Your task to perform on an android device: open app "Grab" (install if not already installed), go to login, and select forgot password Image 0: 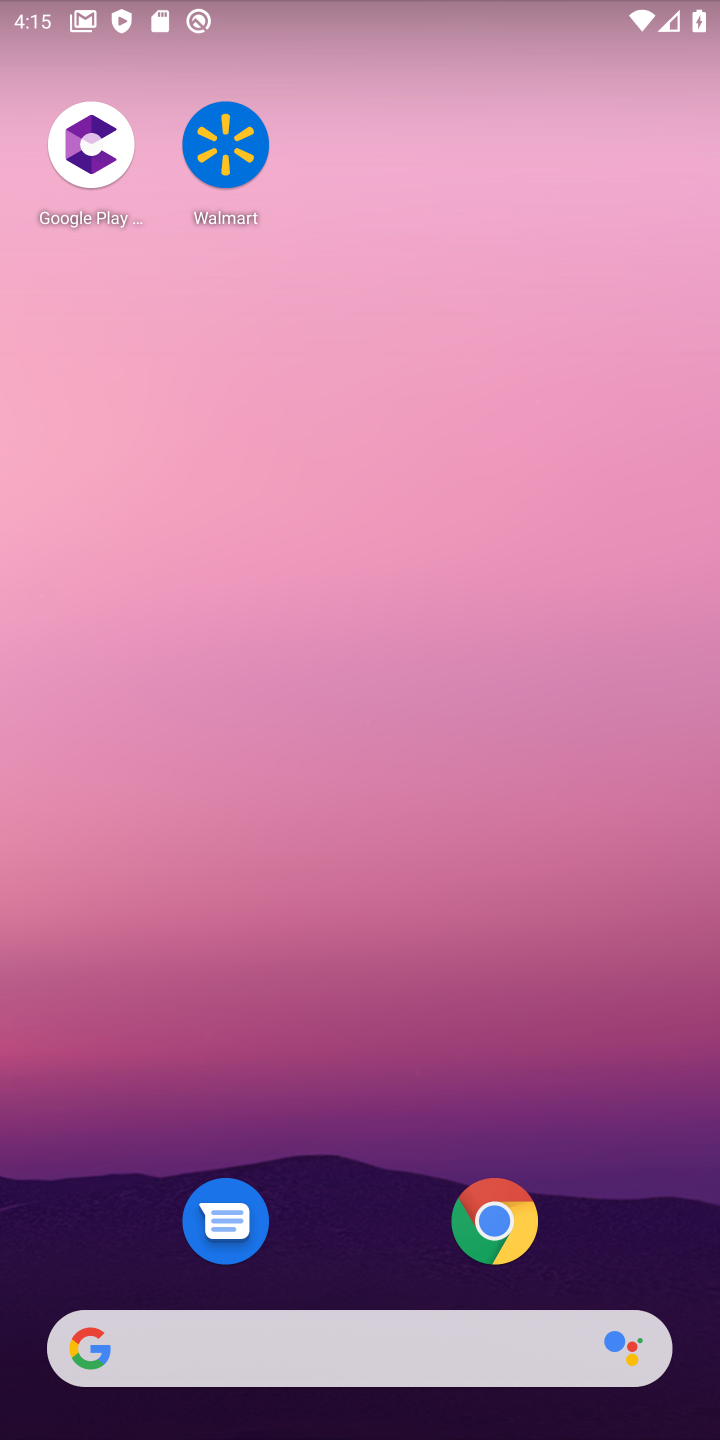
Step 0: drag from (398, 1025) to (259, 73)
Your task to perform on an android device: open app "Grab" (install if not already installed), go to login, and select forgot password Image 1: 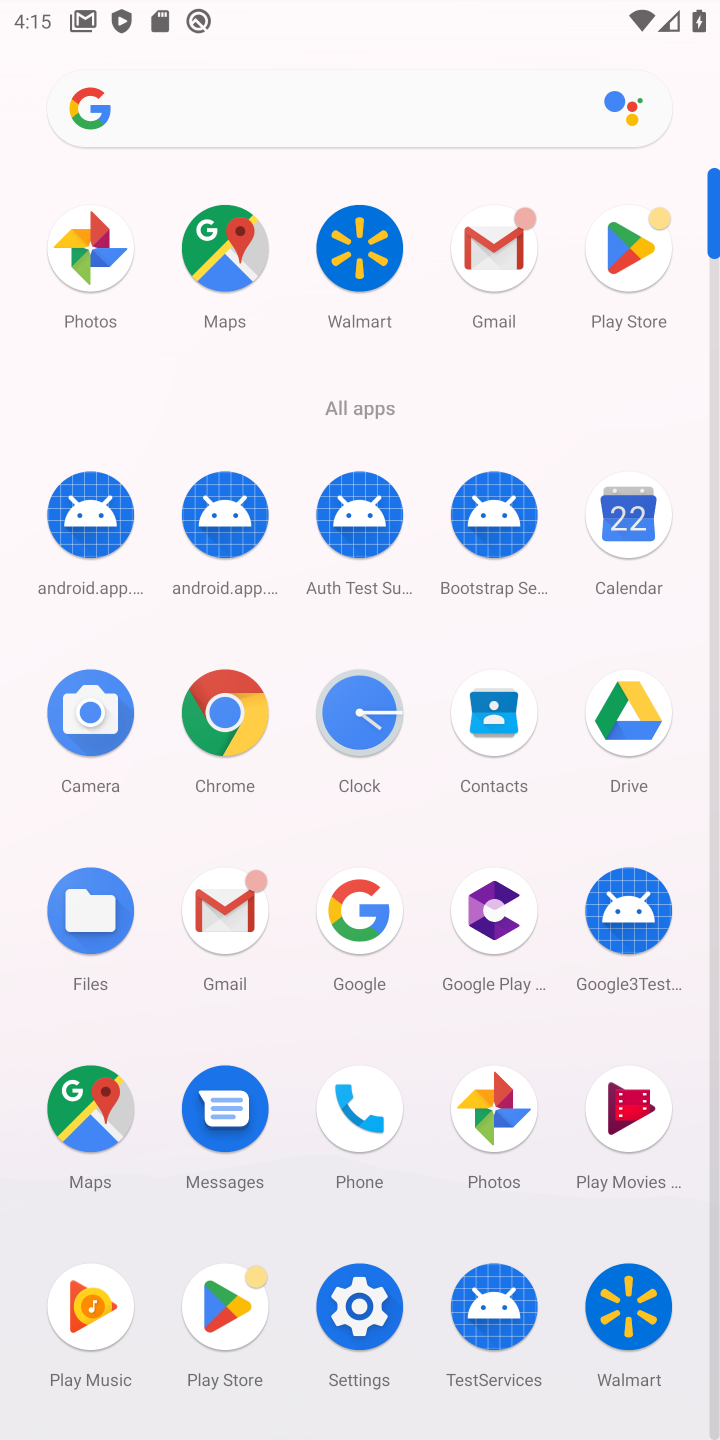
Step 1: click (627, 258)
Your task to perform on an android device: open app "Grab" (install if not already installed), go to login, and select forgot password Image 2: 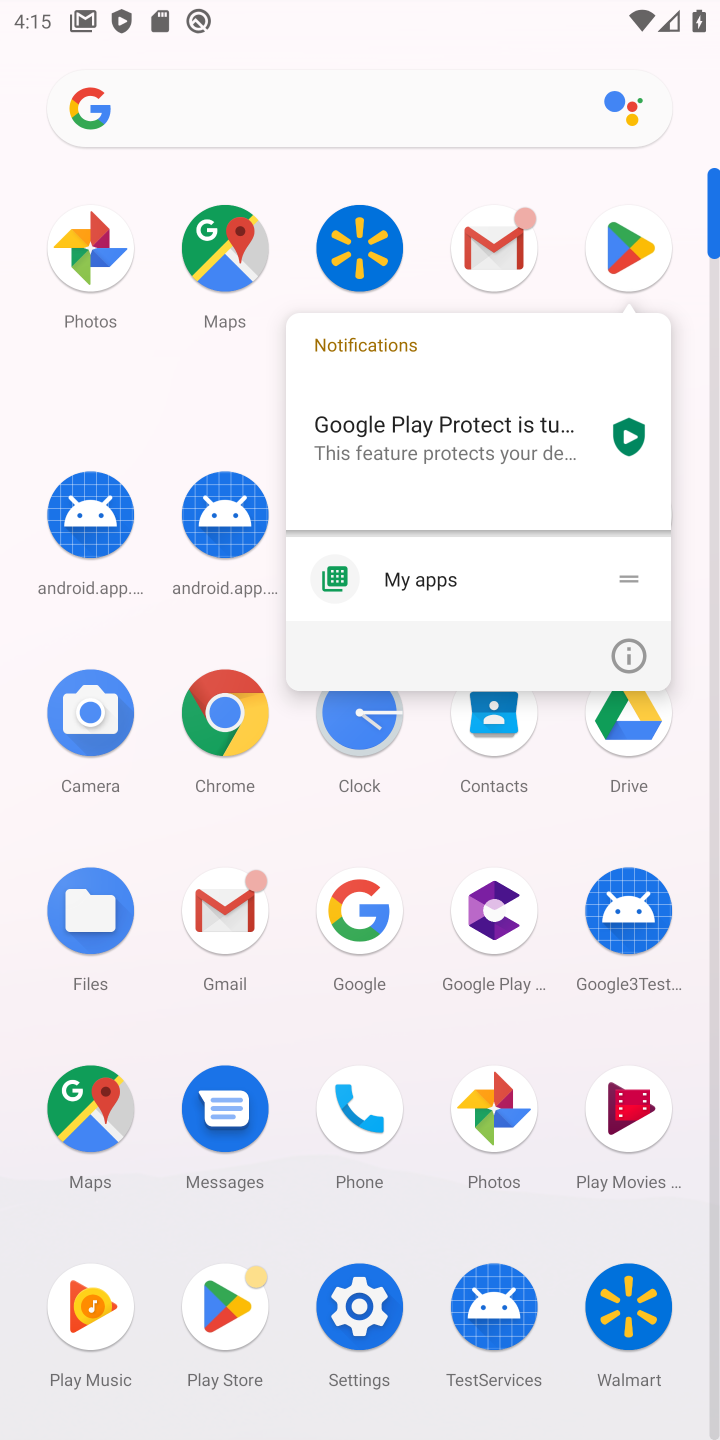
Step 2: click (627, 258)
Your task to perform on an android device: open app "Grab" (install if not already installed), go to login, and select forgot password Image 3: 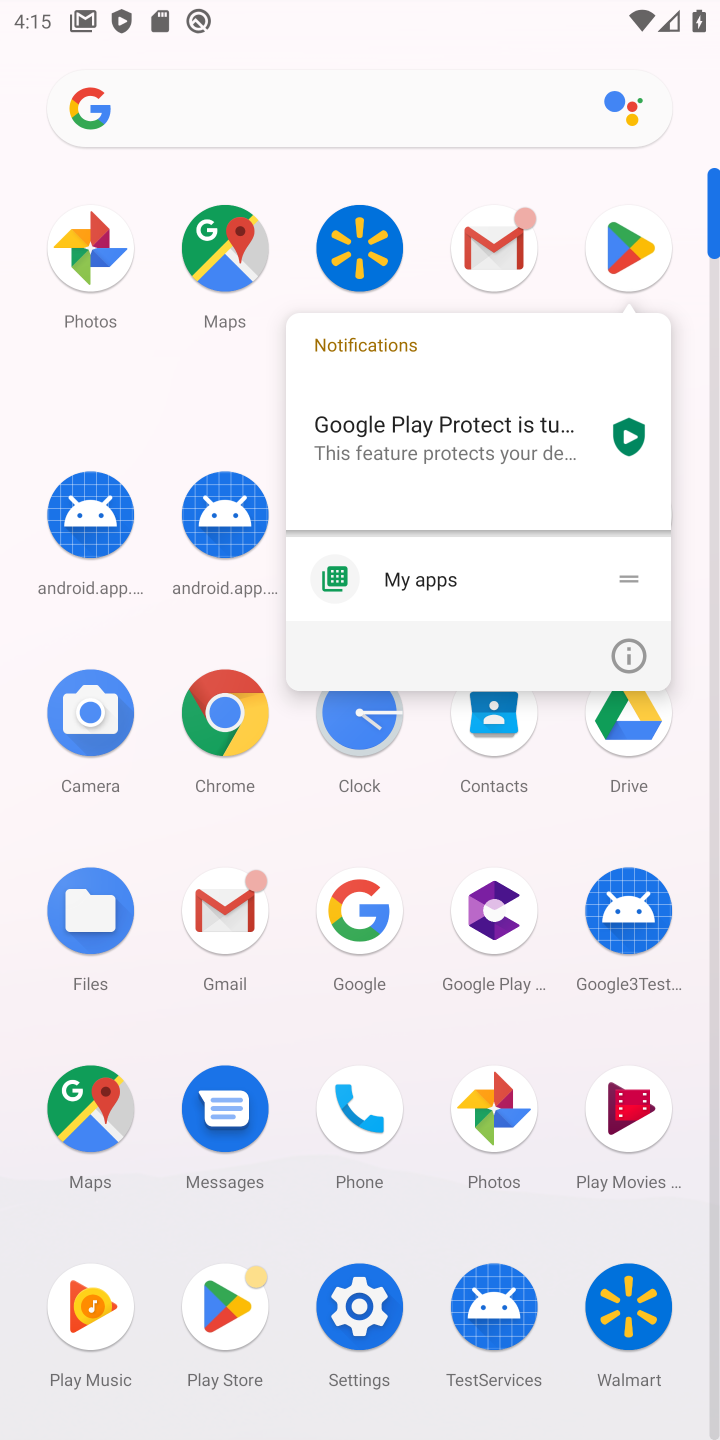
Step 3: click (627, 258)
Your task to perform on an android device: open app "Grab" (install if not already installed), go to login, and select forgot password Image 4: 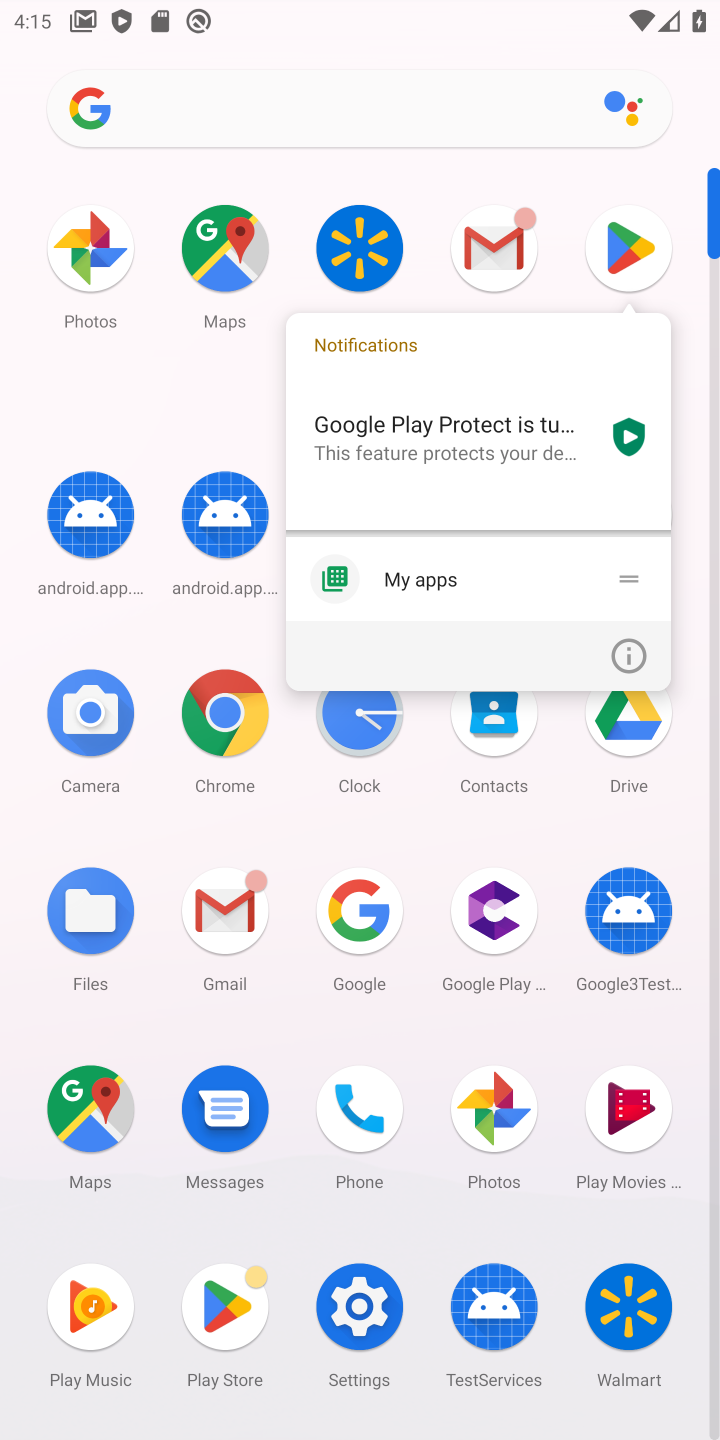
Step 4: click (617, 268)
Your task to perform on an android device: open app "Grab" (install if not already installed), go to login, and select forgot password Image 5: 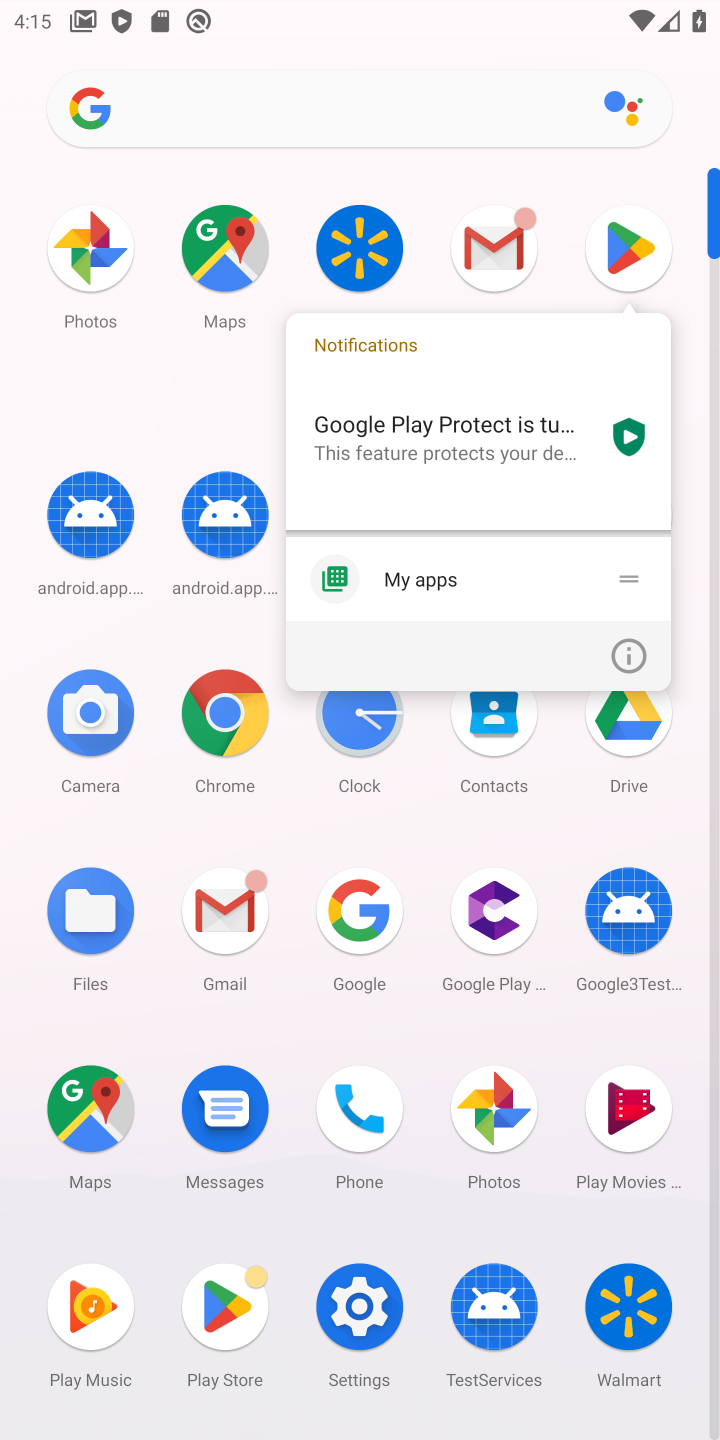
Step 5: click (617, 263)
Your task to perform on an android device: open app "Grab" (install if not already installed), go to login, and select forgot password Image 6: 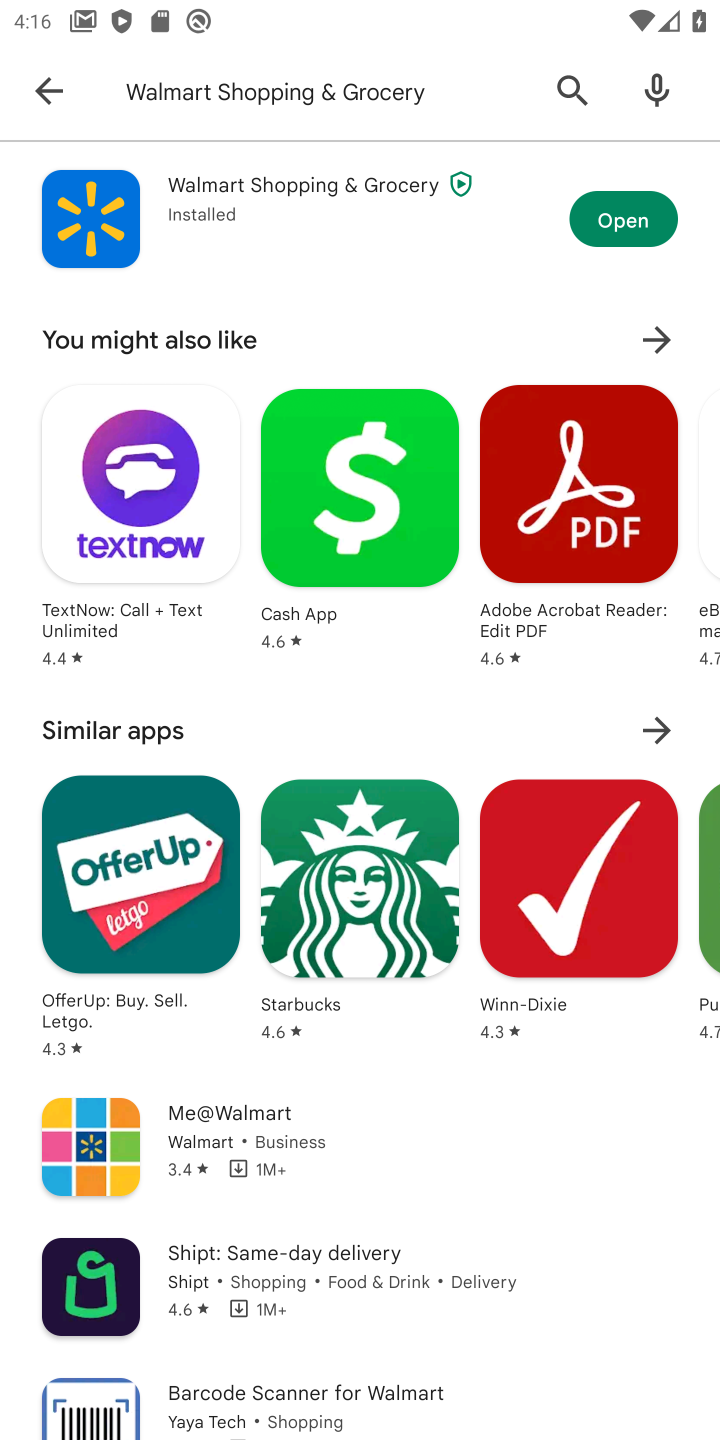
Step 6: press back button
Your task to perform on an android device: open app "Grab" (install if not already installed), go to login, and select forgot password Image 7: 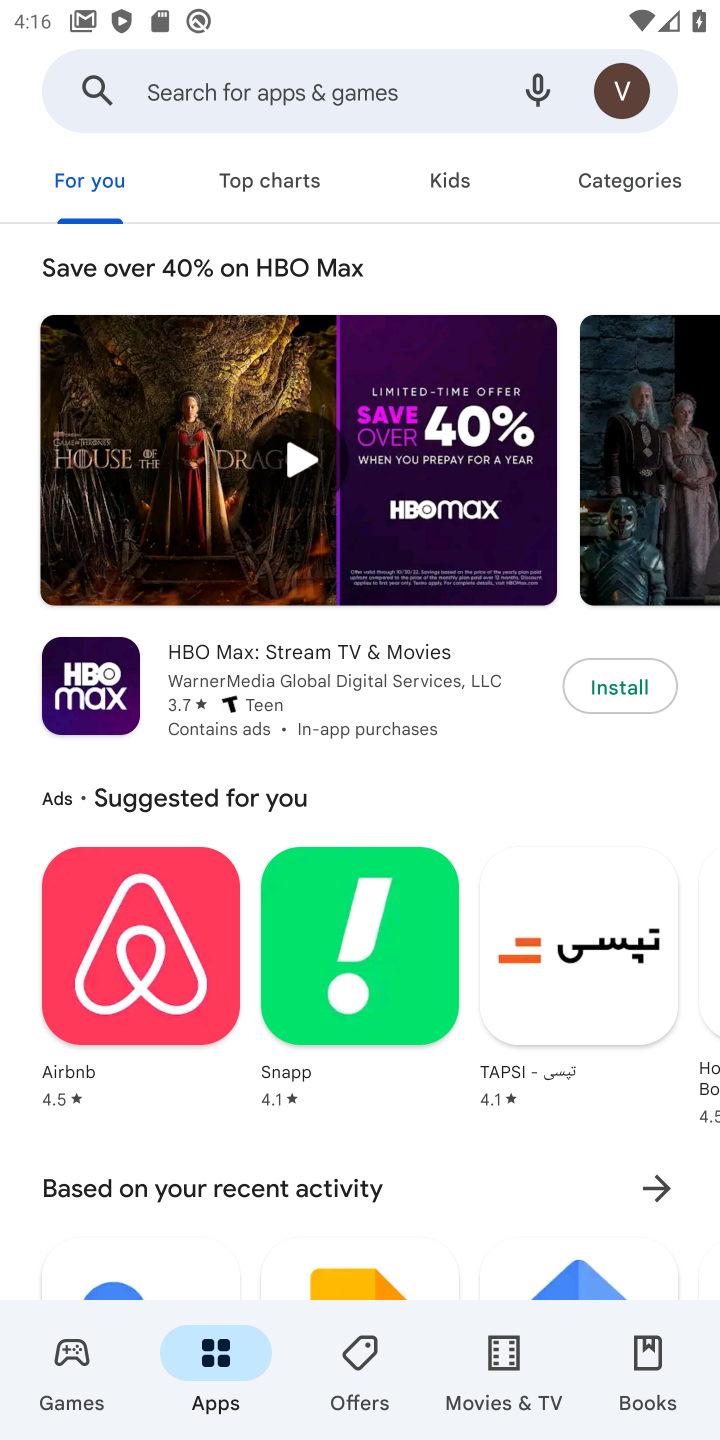
Step 7: click (216, 109)
Your task to perform on an android device: open app "Grab" (install if not already installed), go to login, and select forgot password Image 8: 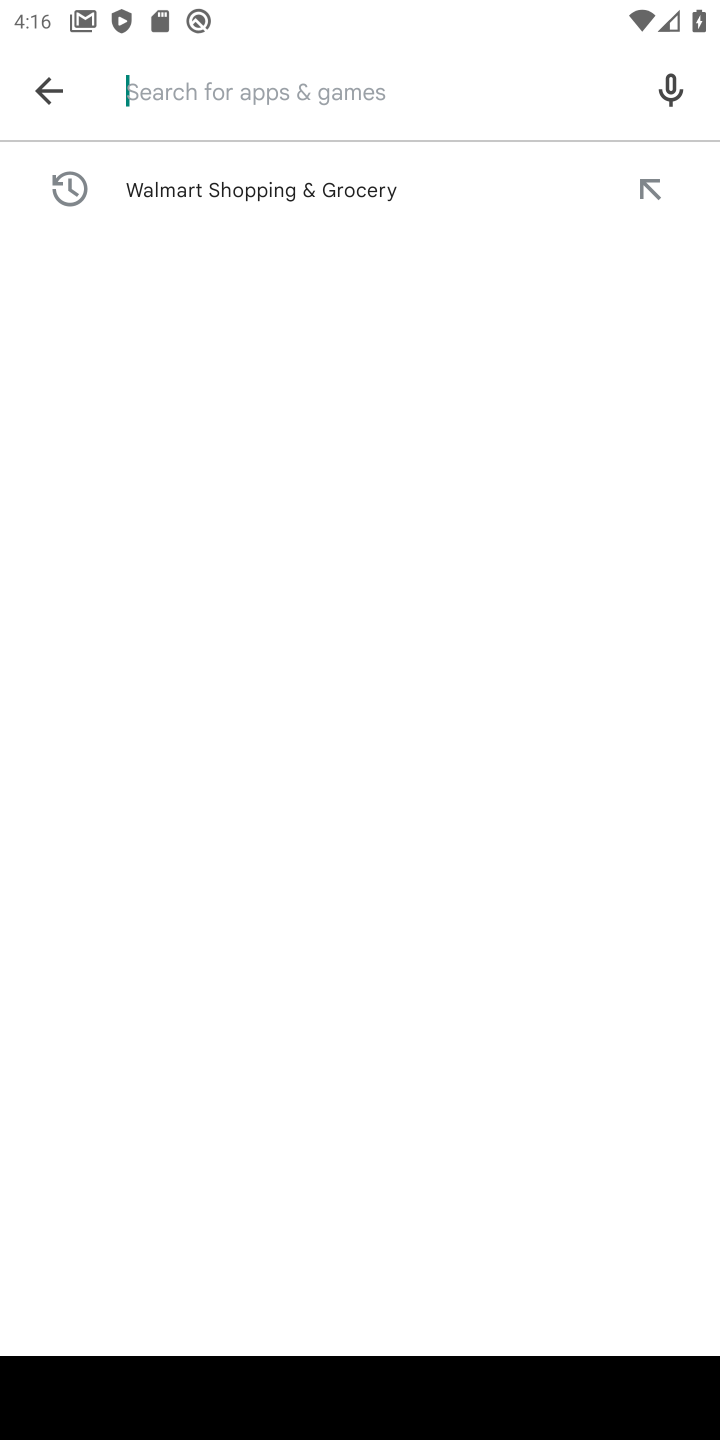
Step 8: type "Grab"
Your task to perform on an android device: open app "Grab" (install if not already installed), go to login, and select forgot password Image 9: 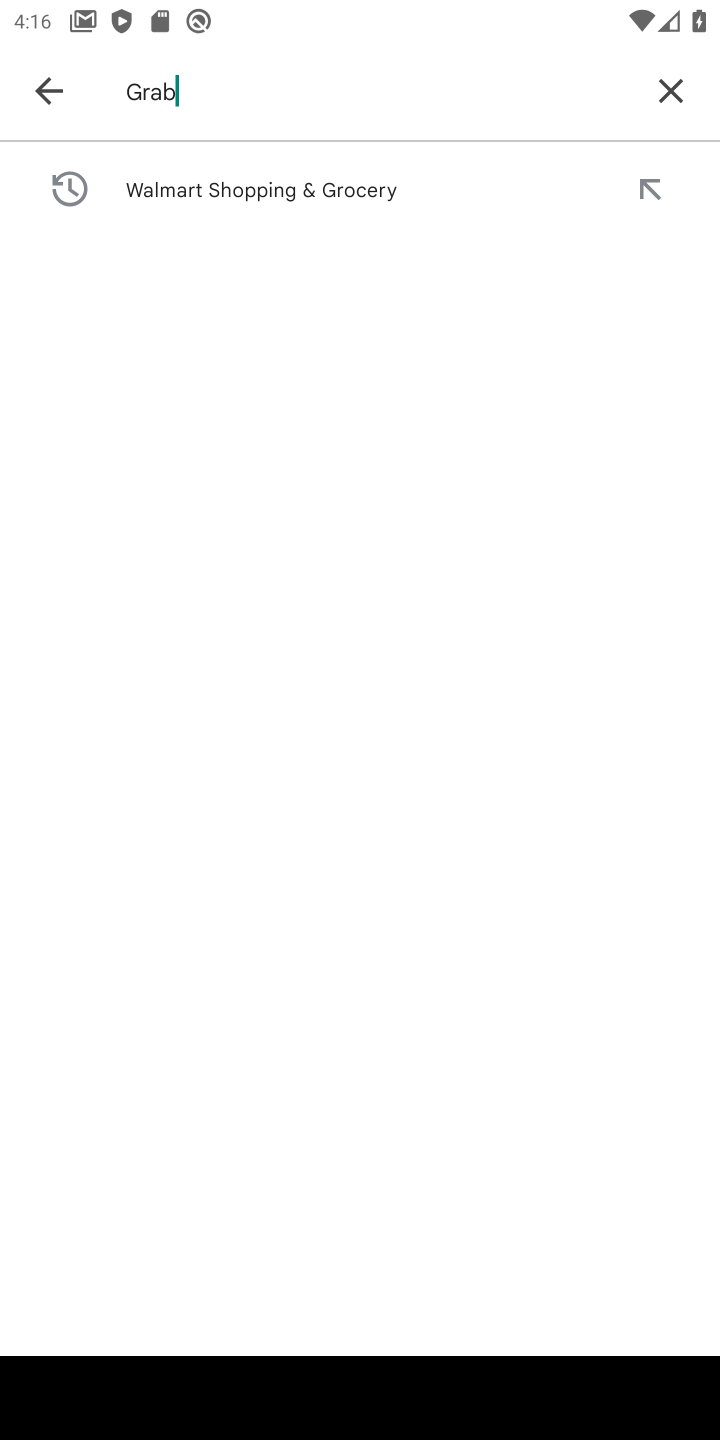
Step 9: press enter
Your task to perform on an android device: open app "Grab" (install if not already installed), go to login, and select forgot password Image 10: 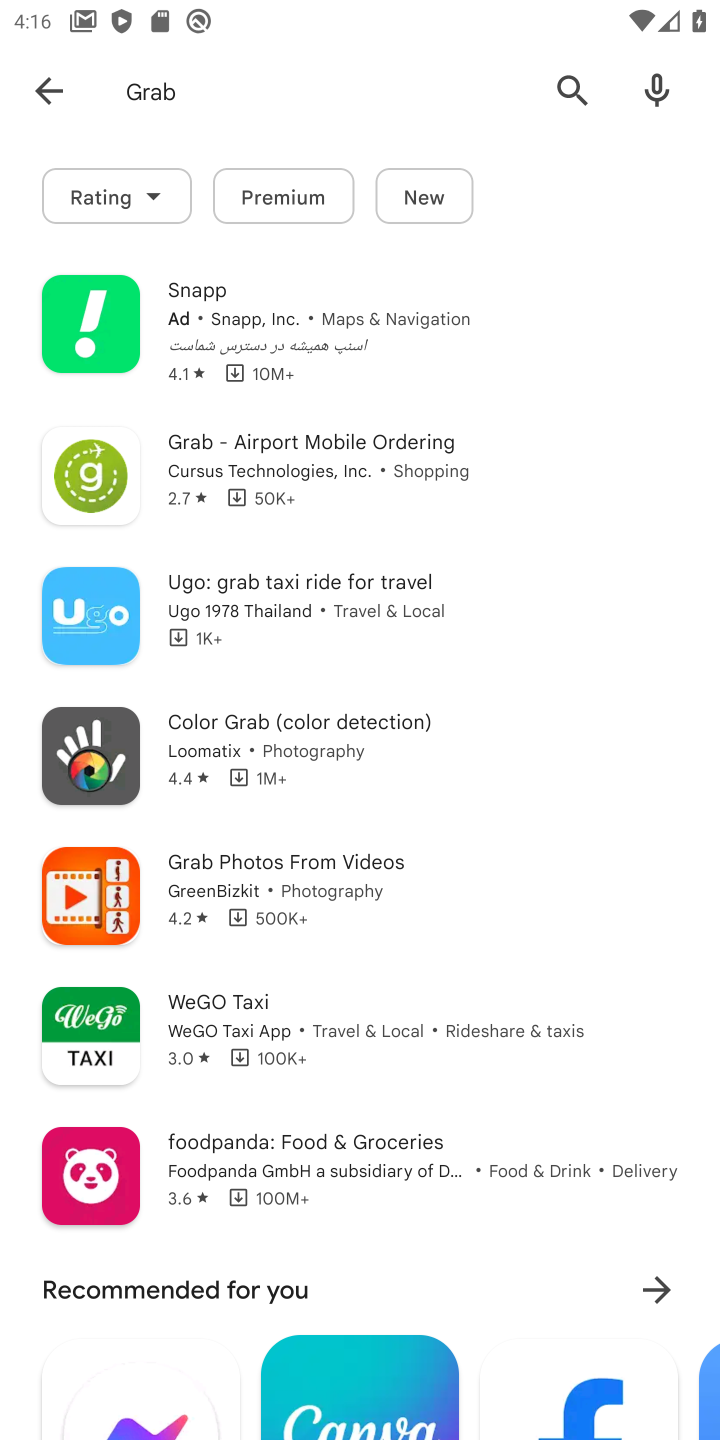
Step 10: click (356, 499)
Your task to perform on an android device: open app "Grab" (install if not already installed), go to login, and select forgot password Image 11: 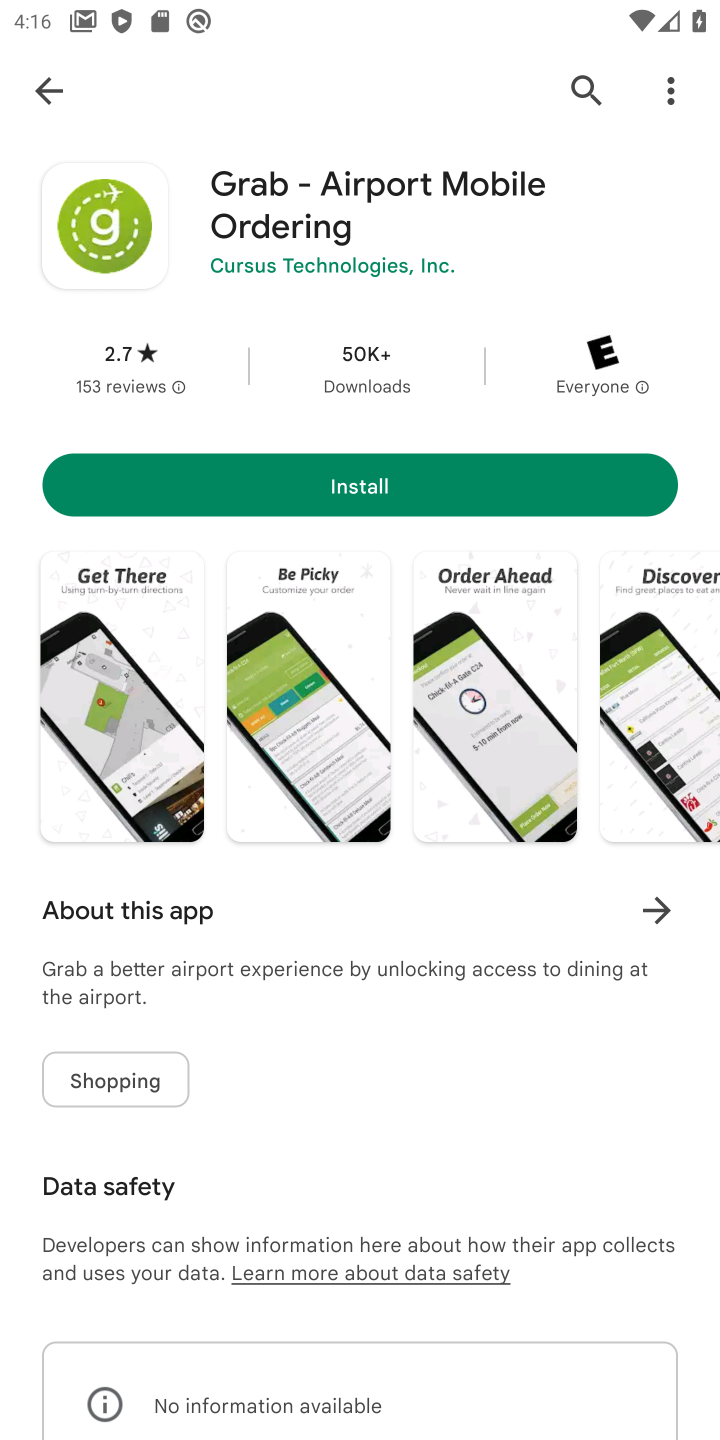
Step 11: click (377, 478)
Your task to perform on an android device: open app "Grab" (install if not already installed), go to login, and select forgot password Image 12: 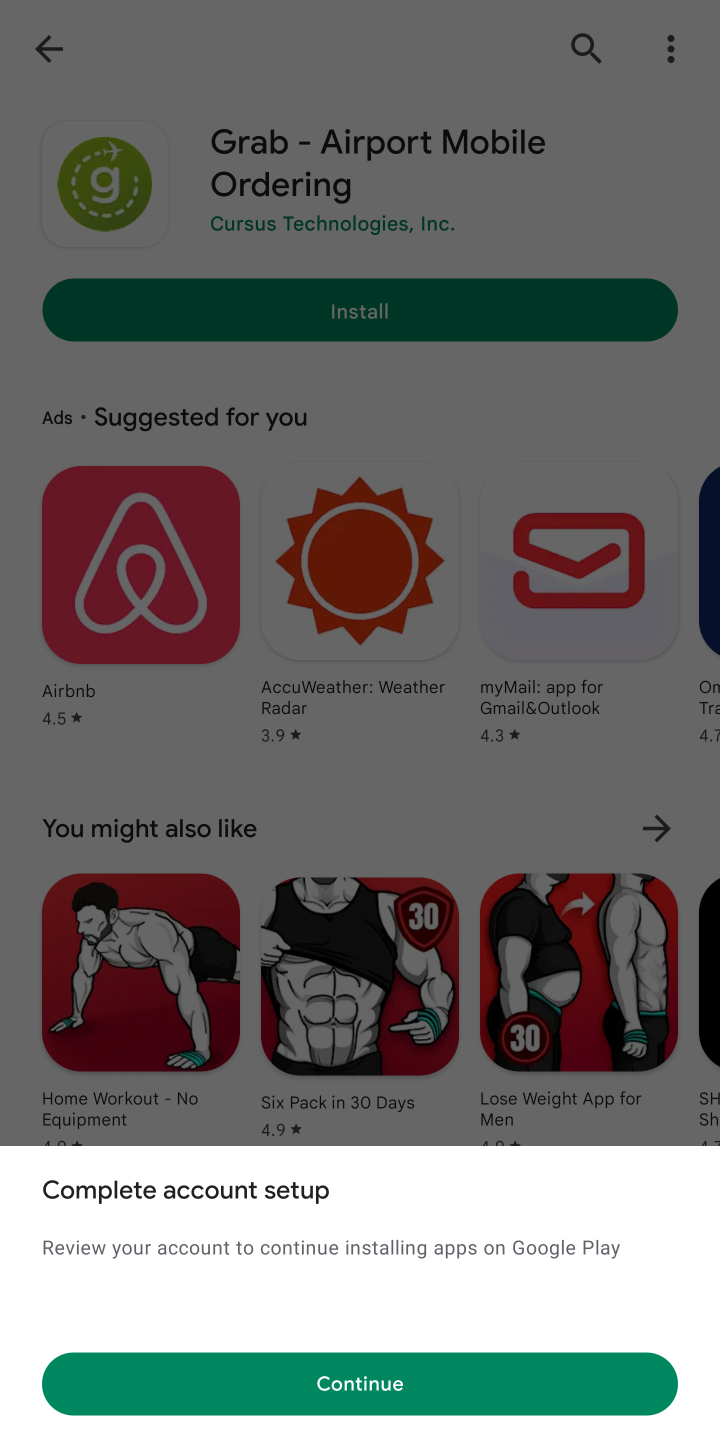
Step 12: click (388, 1368)
Your task to perform on an android device: open app "Grab" (install if not already installed), go to login, and select forgot password Image 13: 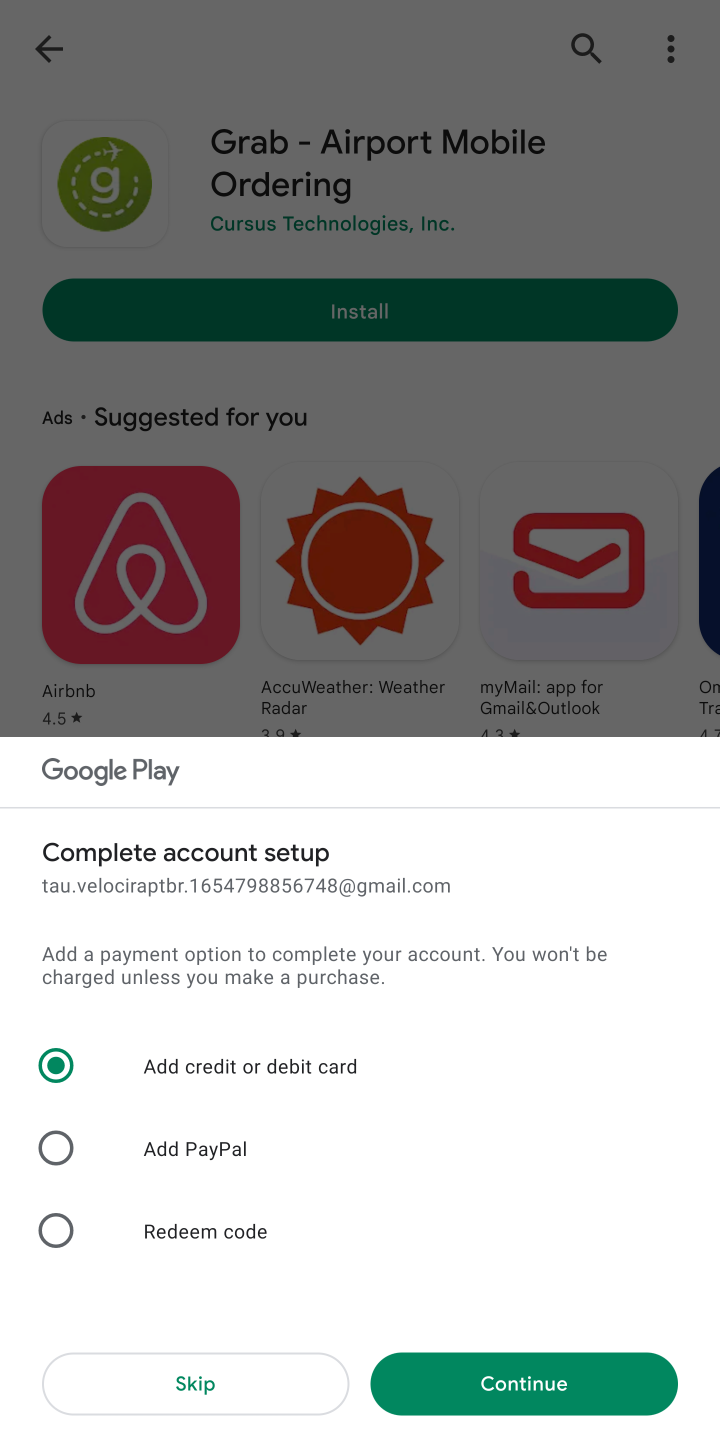
Step 13: click (247, 1402)
Your task to perform on an android device: open app "Grab" (install if not already installed), go to login, and select forgot password Image 14: 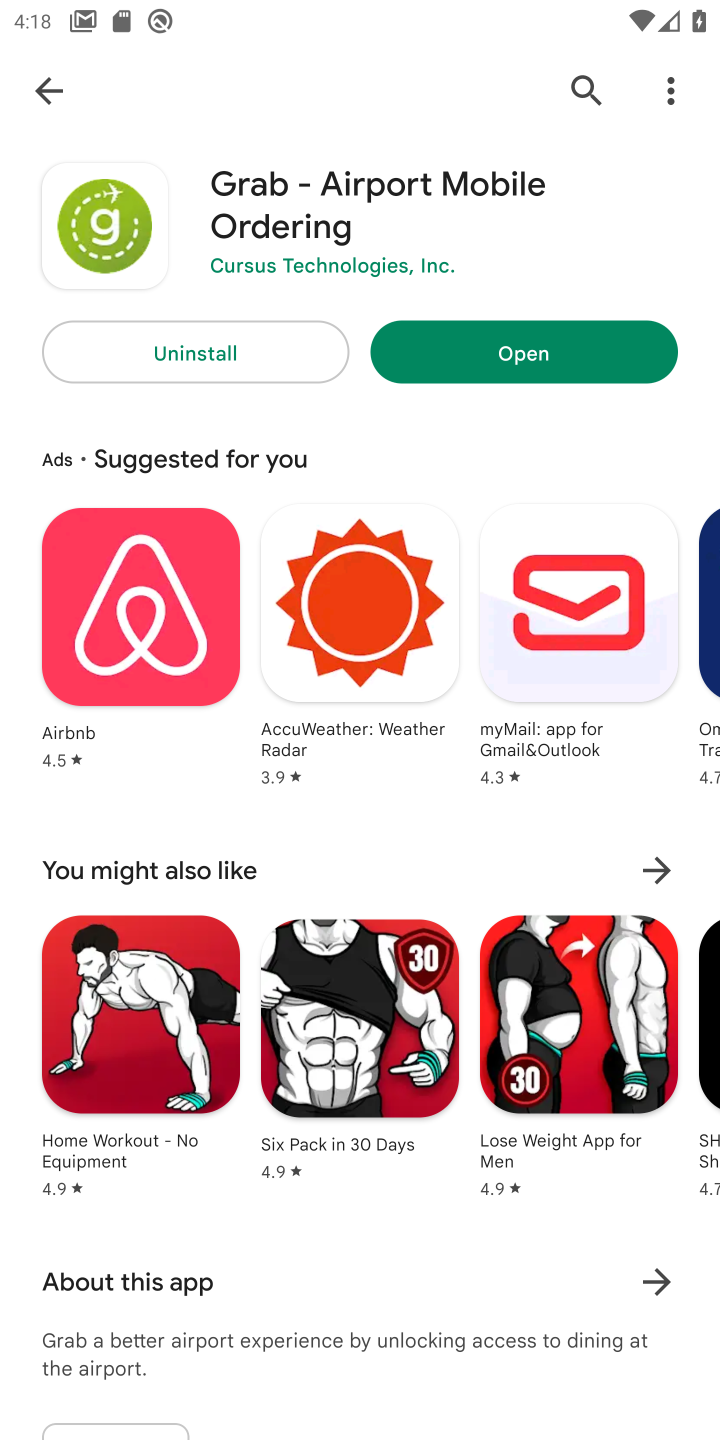
Step 14: click (562, 368)
Your task to perform on an android device: open app "Grab" (install if not already installed), go to login, and select forgot password Image 15: 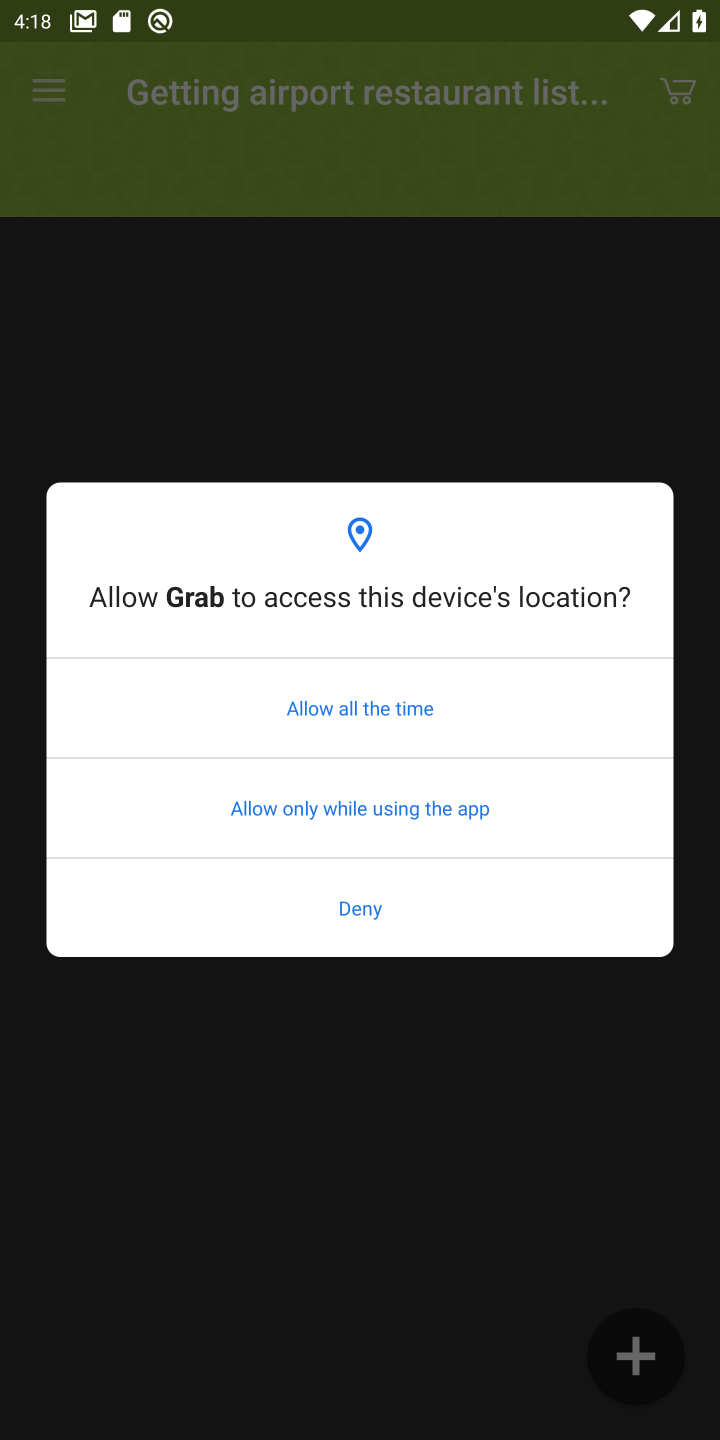
Step 15: click (470, 709)
Your task to perform on an android device: open app "Grab" (install if not already installed), go to login, and select forgot password Image 16: 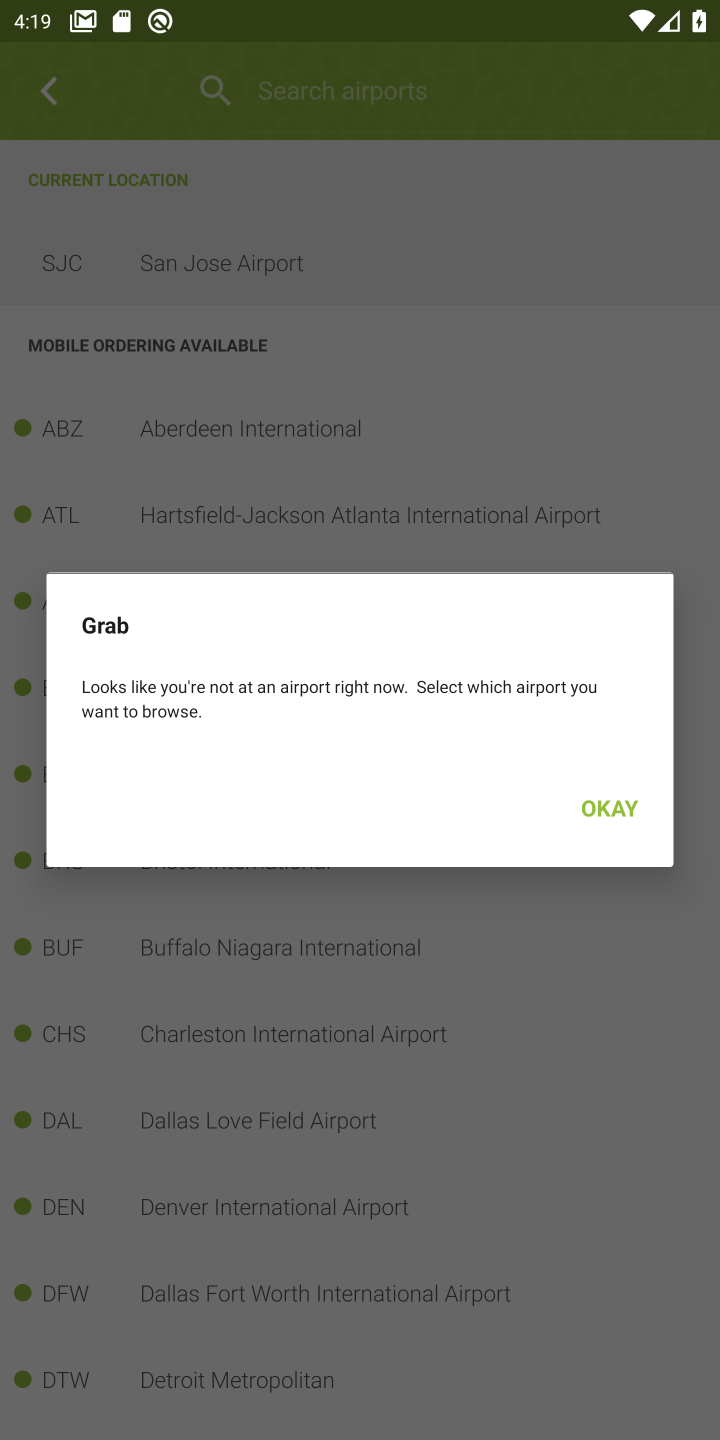
Step 16: click (609, 760)
Your task to perform on an android device: open app "Grab" (install if not already installed), go to login, and select forgot password Image 17: 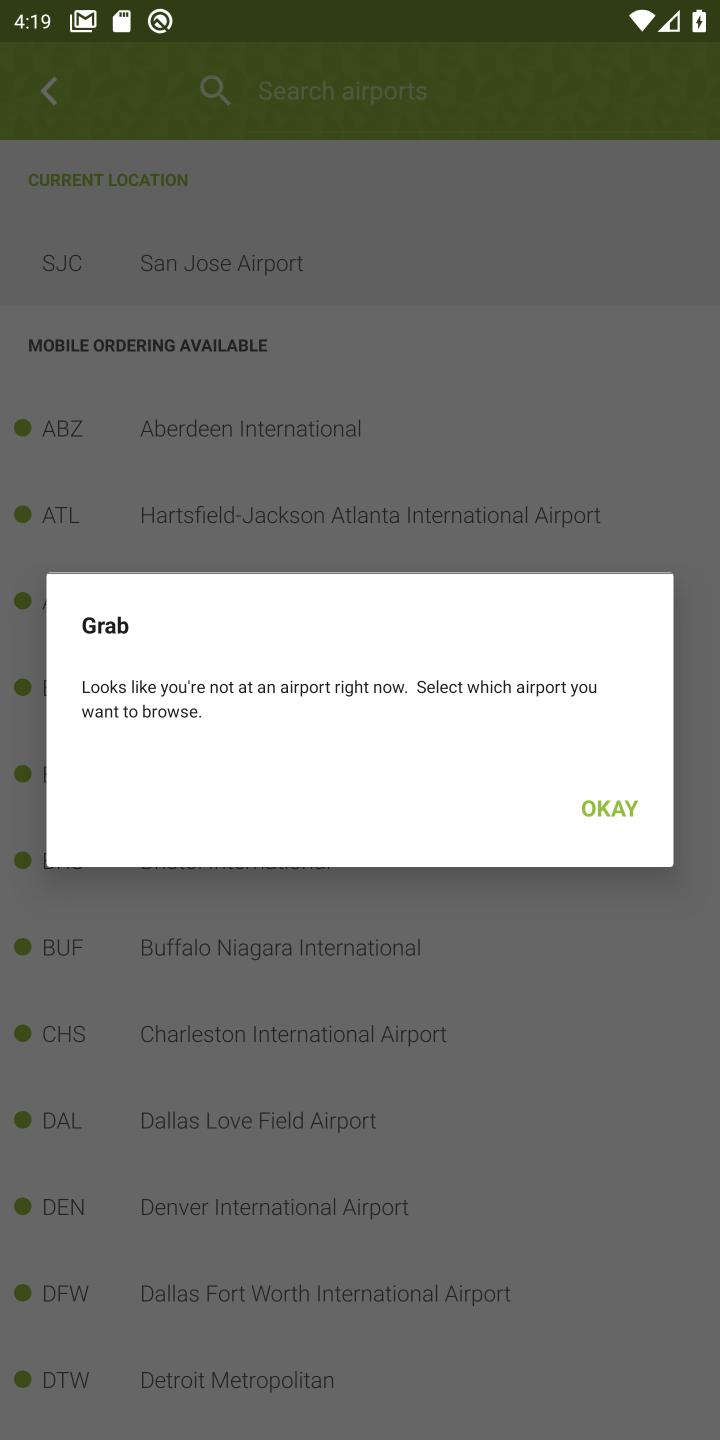
Step 17: click (606, 806)
Your task to perform on an android device: open app "Grab" (install if not already installed), go to login, and select forgot password Image 18: 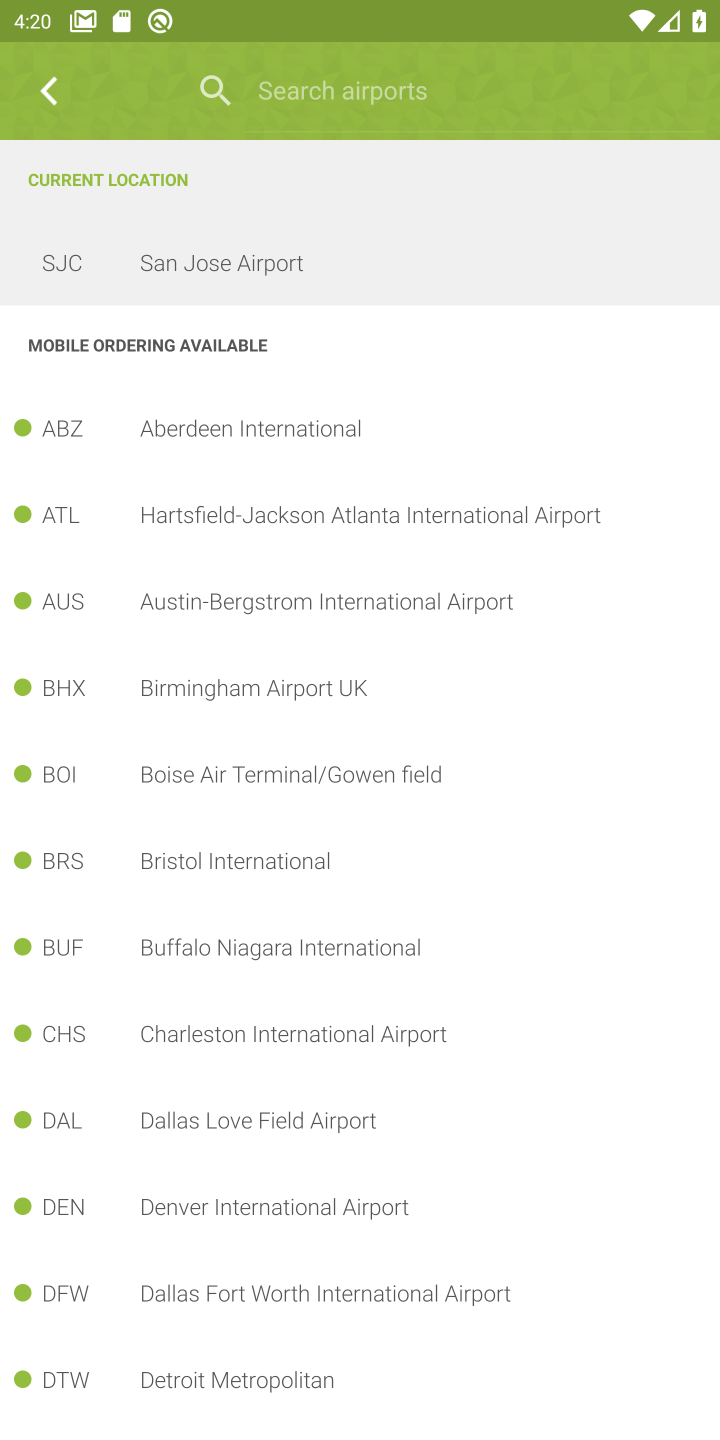
Step 18: task complete